Your task to perform on an android device: Go to internet settings Image 0: 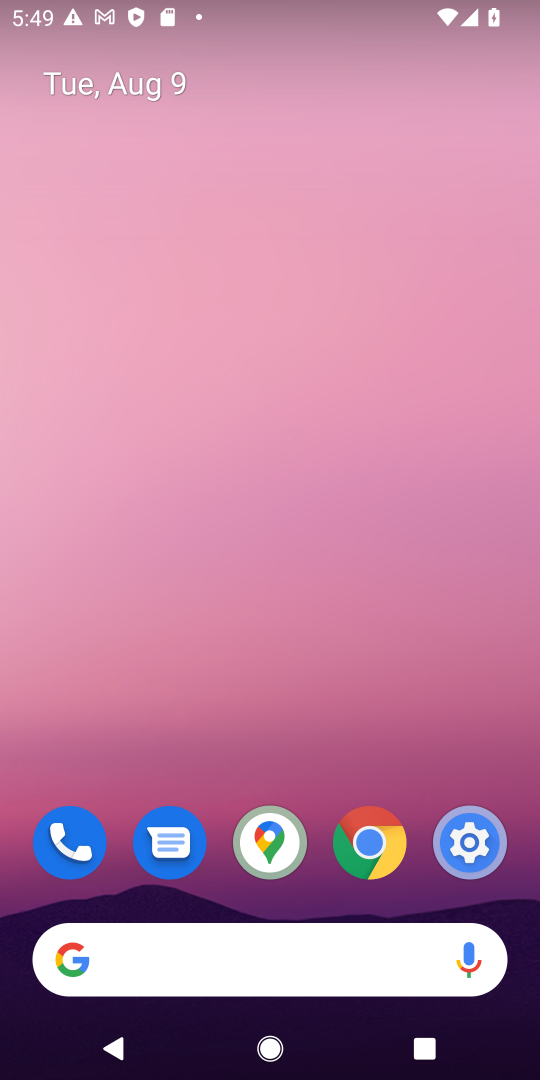
Step 0: drag from (174, 912) to (147, 367)
Your task to perform on an android device: Go to internet settings Image 1: 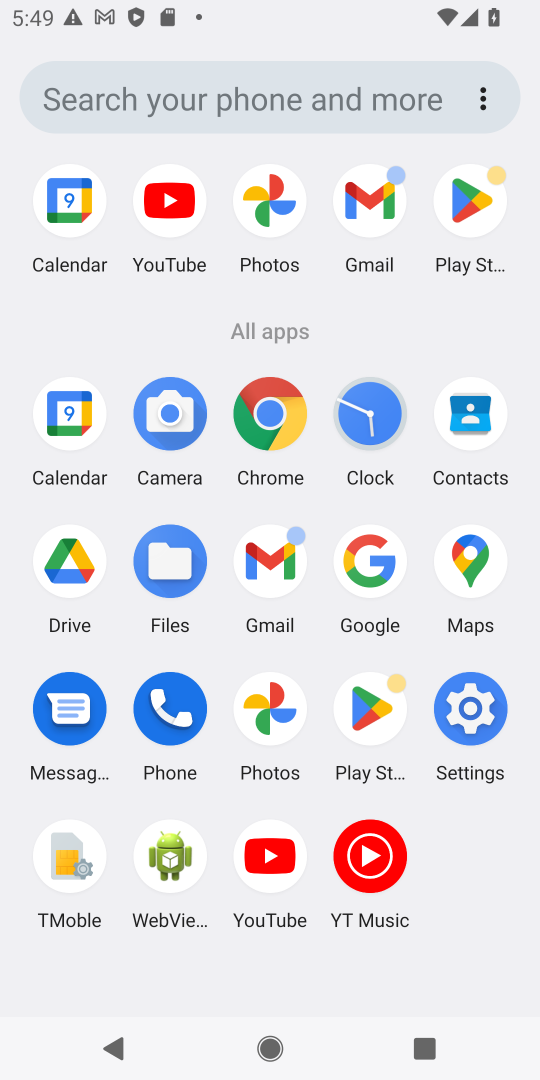
Step 1: click (469, 691)
Your task to perform on an android device: Go to internet settings Image 2: 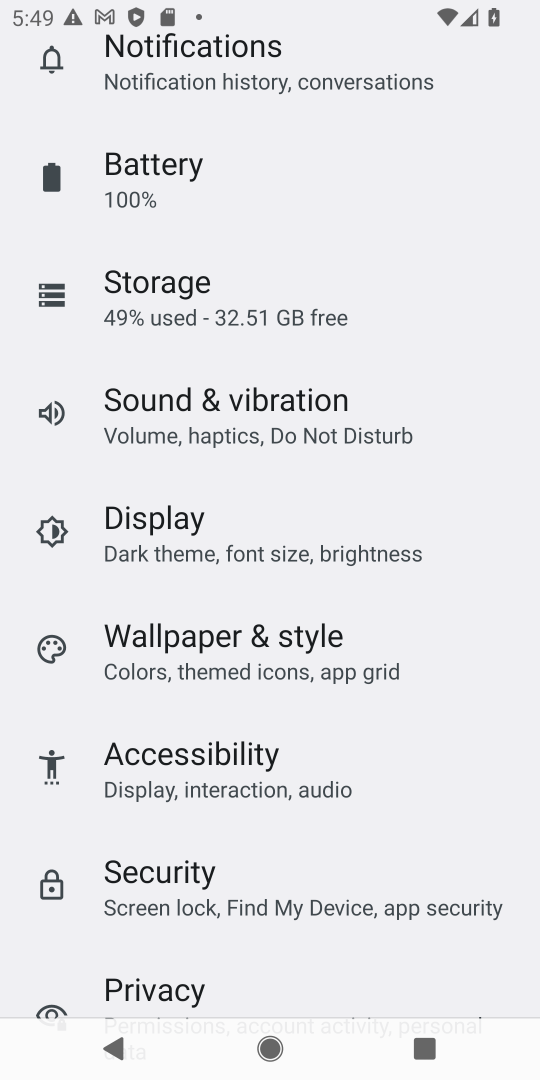
Step 2: drag from (159, 268) to (239, 719)
Your task to perform on an android device: Go to internet settings Image 3: 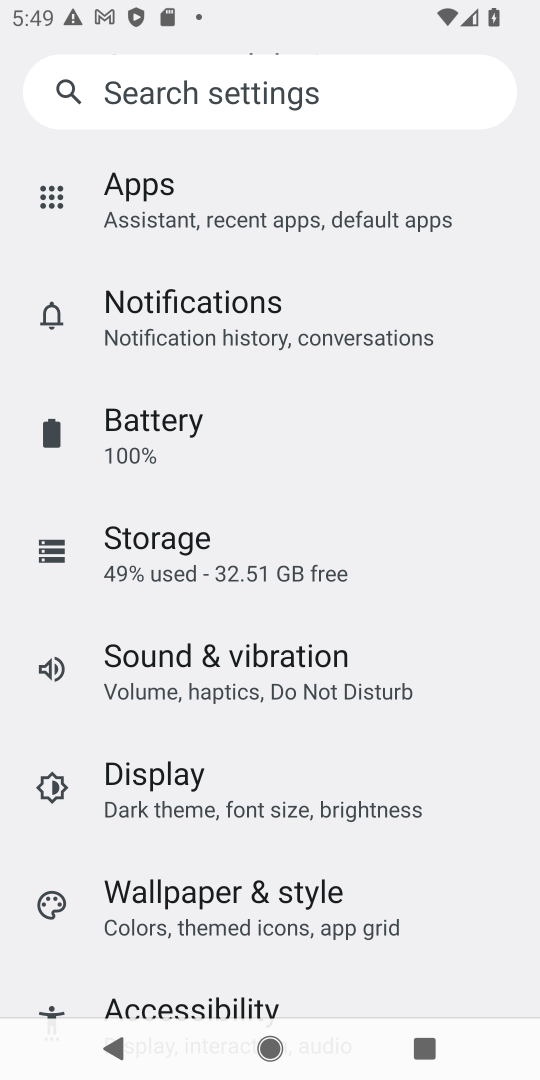
Step 3: drag from (317, 290) to (376, 838)
Your task to perform on an android device: Go to internet settings Image 4: 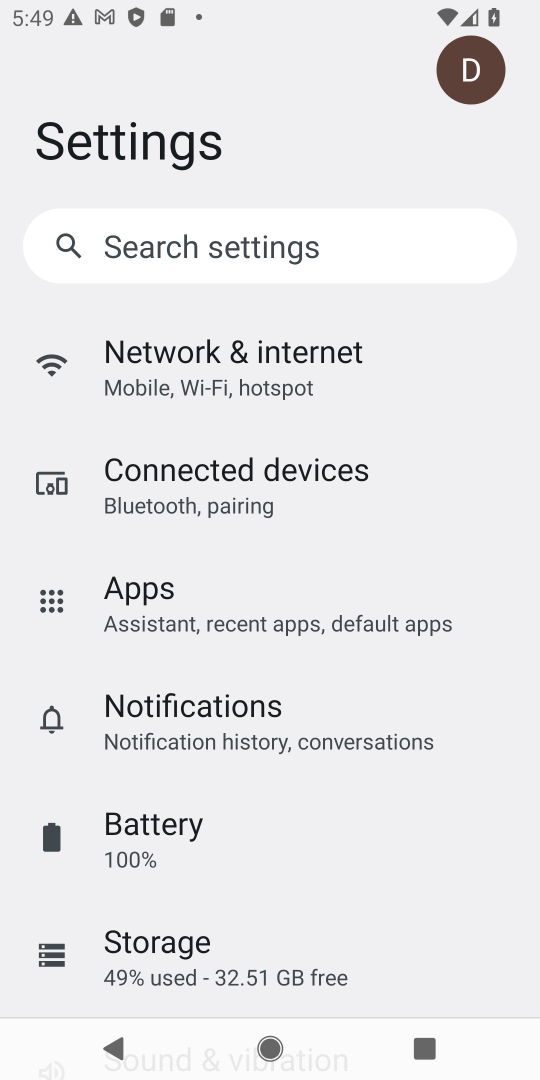
Step 4: click (230, 379)
Your task to perform on an android device: Go to internet settings Image 5: 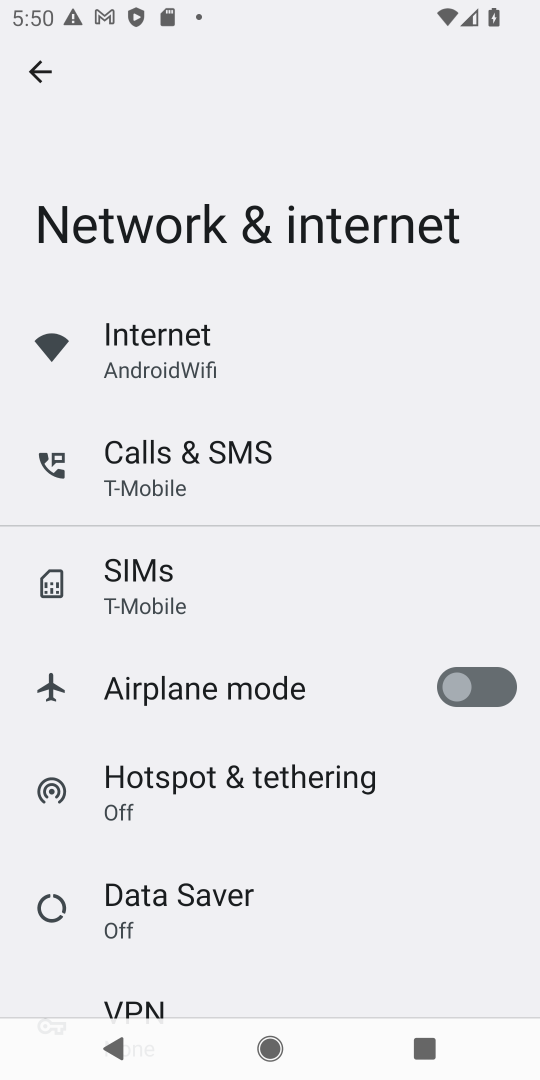
Step 5: click (180, 332)
Your task to perform on an android device: Go to internet settings Image 6: 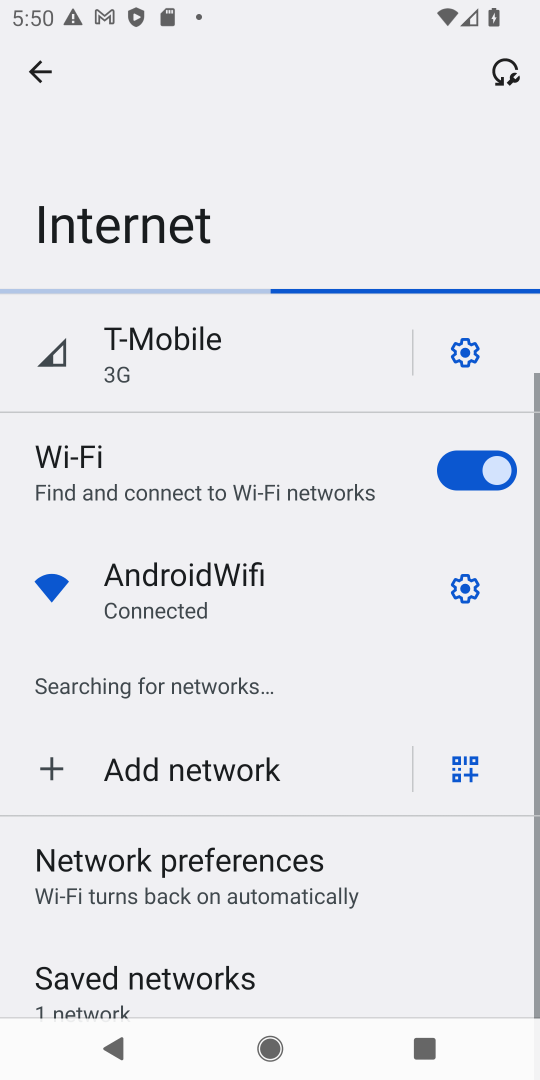
Step 6: task complete